Your task to perform on an android device: Open ESPN.com Image 0: 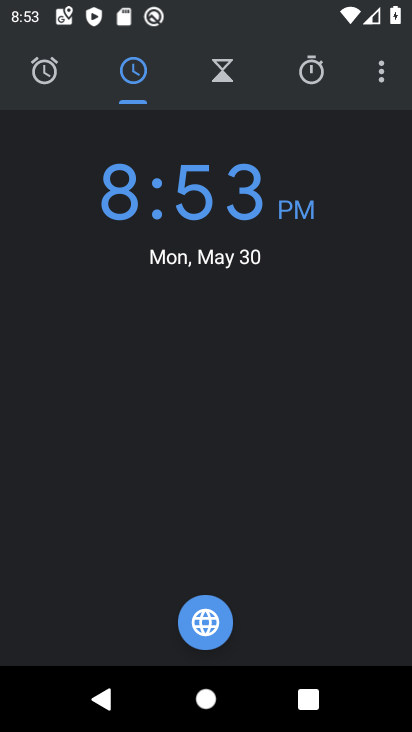
Step 0: press home button
Your task to perform on an android device: Open ESPN.com Image 1: 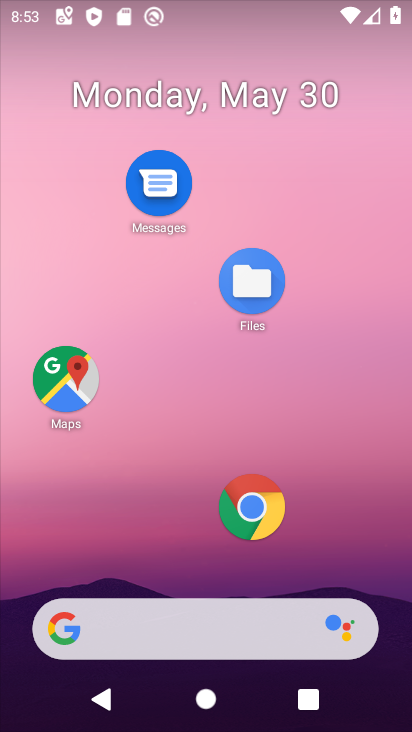
Step 1: click (235, 514)
Your task to perform on an android device: Open ESPN.com Image 2: 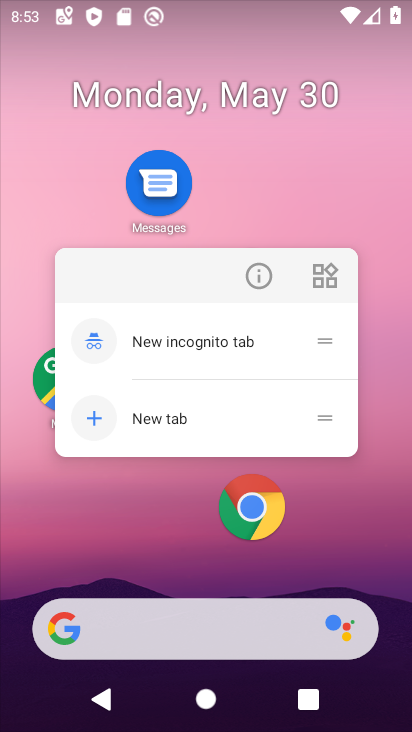
Step 2: click (267, 516)
Your task to perform on an android device: Open ESPN.com Image 3: 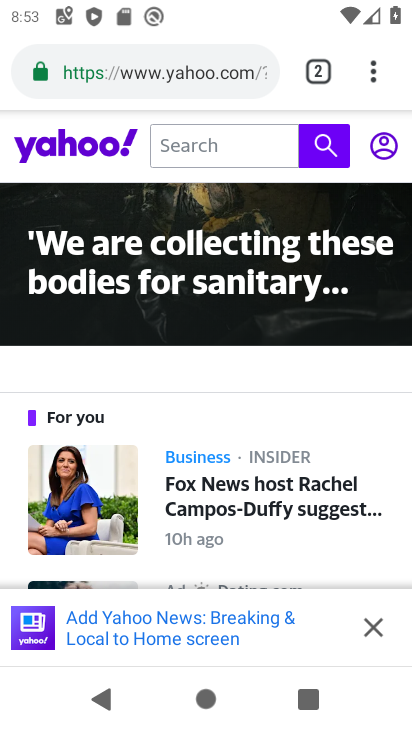
Step 3: click (148, 75)
Your task to perform on an android device: Open ESPN.com Image 4: 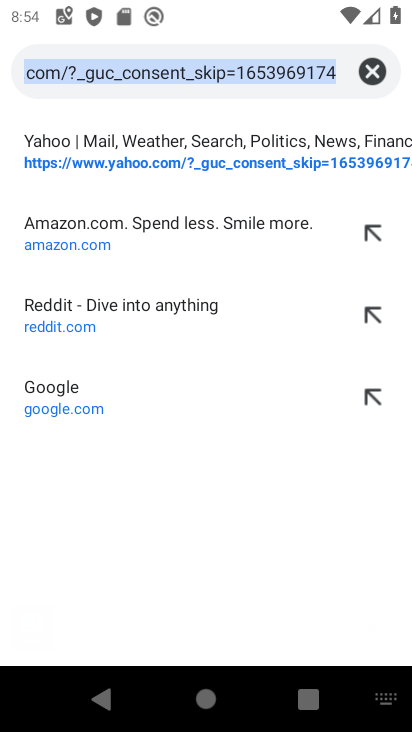
Step 4: type "ESPN.com"
Your task to perform on an android device: Open ESPN.com Image 5: 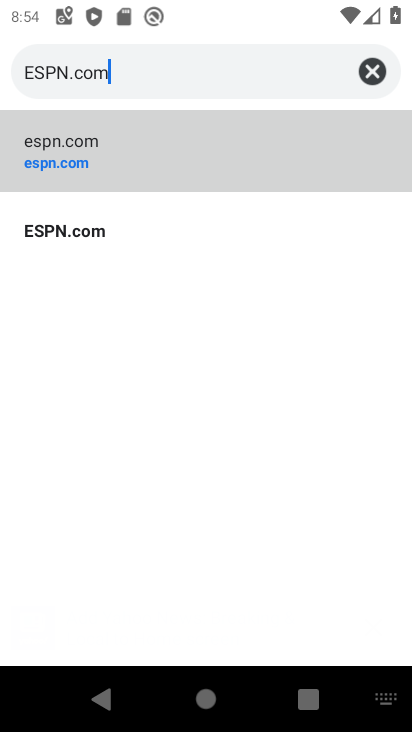
Step 5: click (129, 251)
Your task to perform on an android device: Open ESPN.com Image 6: 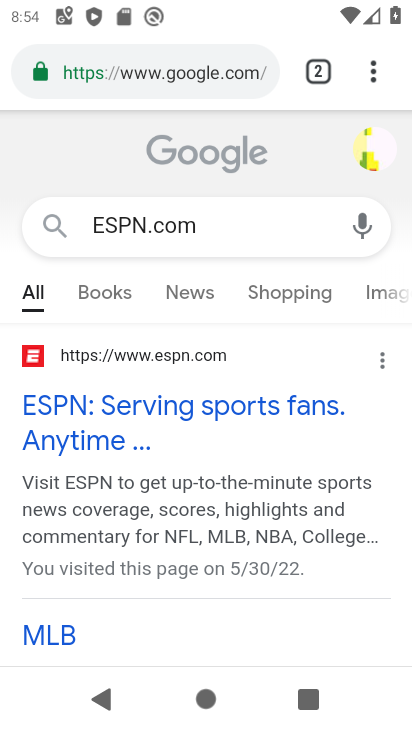
Step 6: task complete